Your task to perform on an android device: turn on translation in the chrome app Image 0: 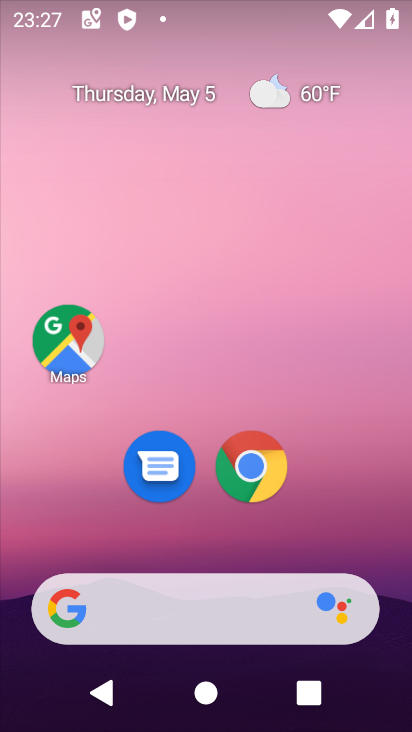
Step 0: click (242, 468)
Your task to perform on an android device: turn on translation in the chrome app Image 1: 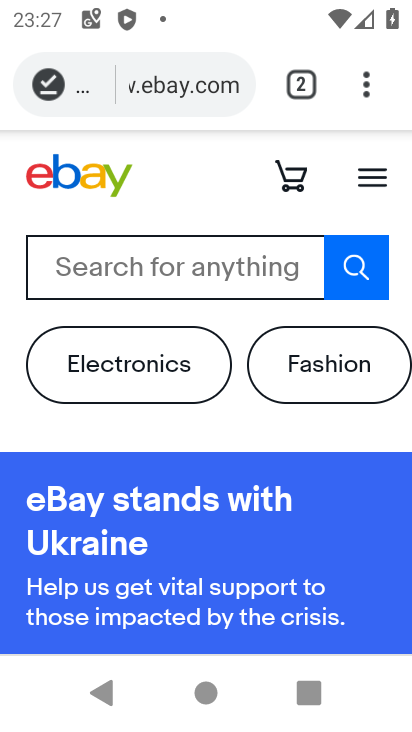
Step 1: click (369, 80)
Your task to perform on an android device: turn on translation in the chrome app Image 2: 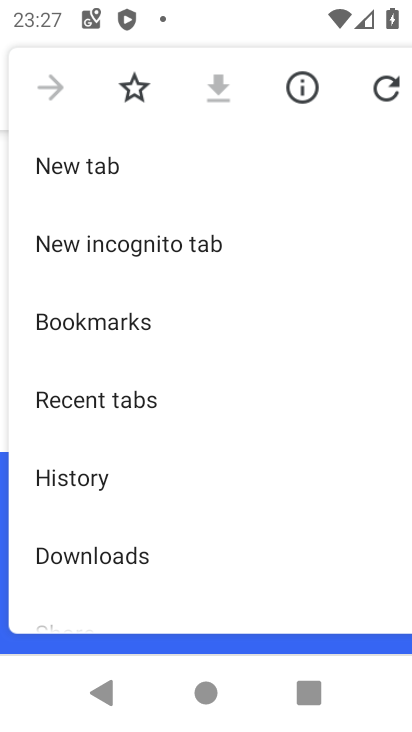
Step 2: drag from (144, 582) to (210, 228)
Your task to perform on an android device: turn on translation in the chrome app Image 3: 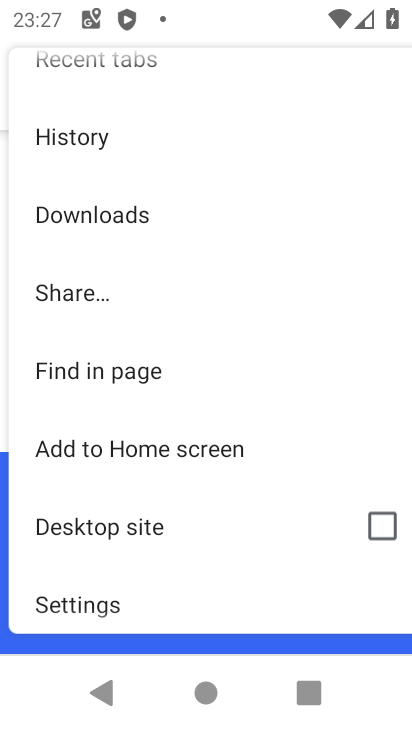
Step 3: click (91, 605)
Your task to perform on an android device: turn on translation in the chrome app Image 4: 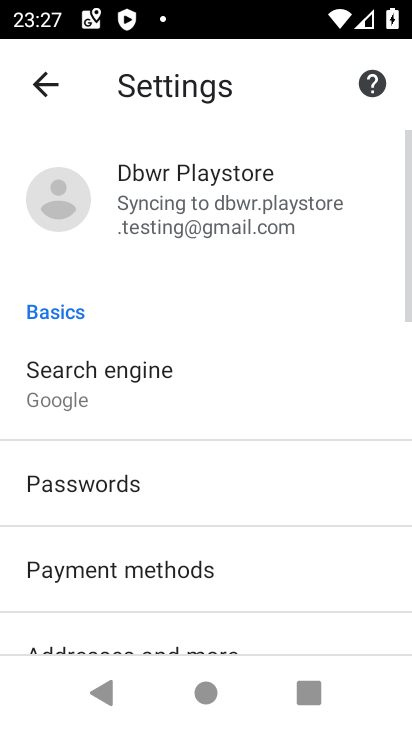
Step 4: drag from (164, 565) to (215, 196)
Your task to perform on an android device: turn on translation in the chrome app Image 5: 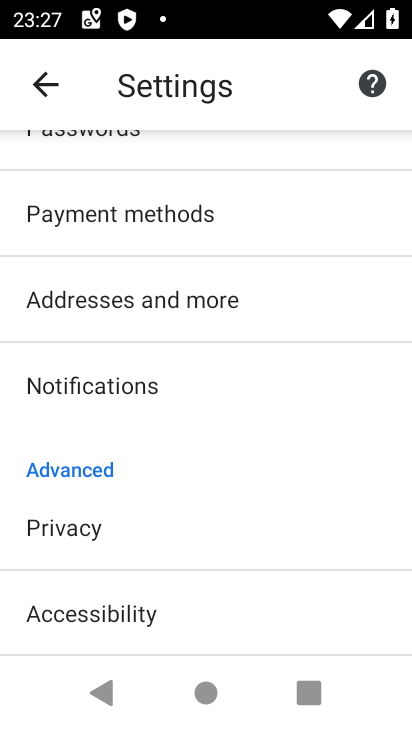
Step 5: drag from (120, 653) to (154, 332)
Your task to perform on an android device: turn on translation in the chrome app Image 6: 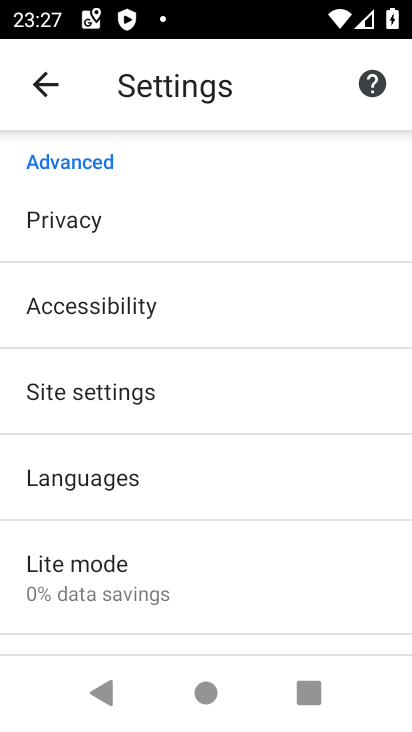
Step 6: click (89, 486)
Your task to perform on an android device: turn on translation in the chrome app Image 7: 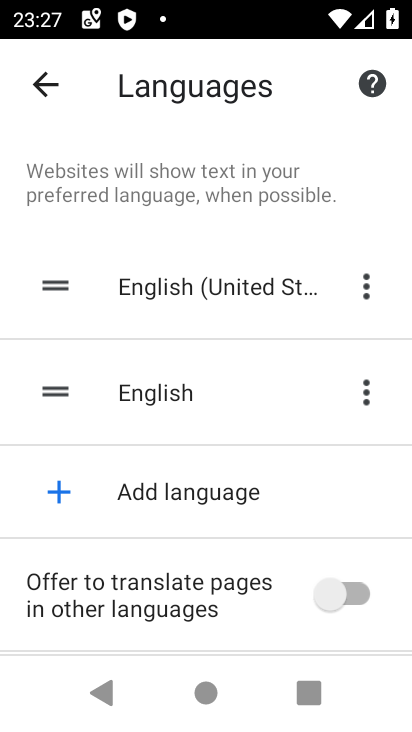
Step 7: click (353, 593)
Your task to perform on an android device: turn on translation in the chrome app Image 8: 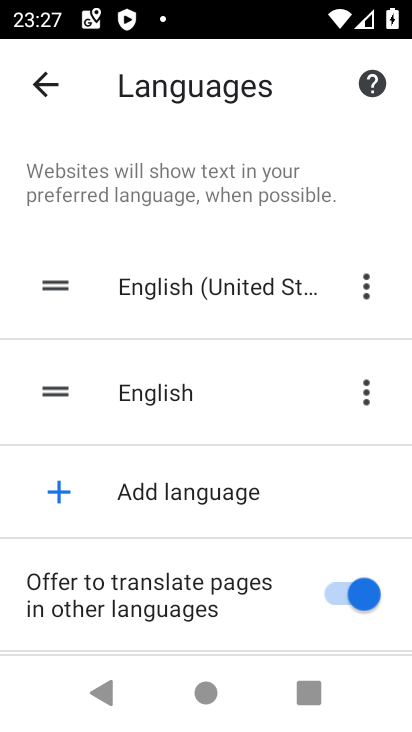
Step 8: task complete